Your task to perform on an android device: toggle airplane mode Image 0: 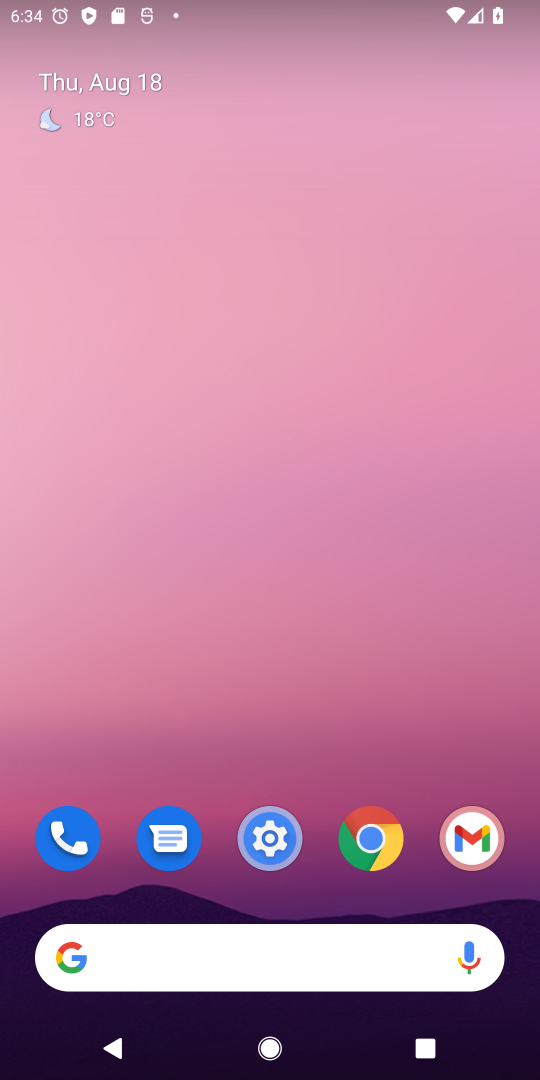
Step 0: press home button
Your task to perform on an android device: toggle airplane mode Image 1: 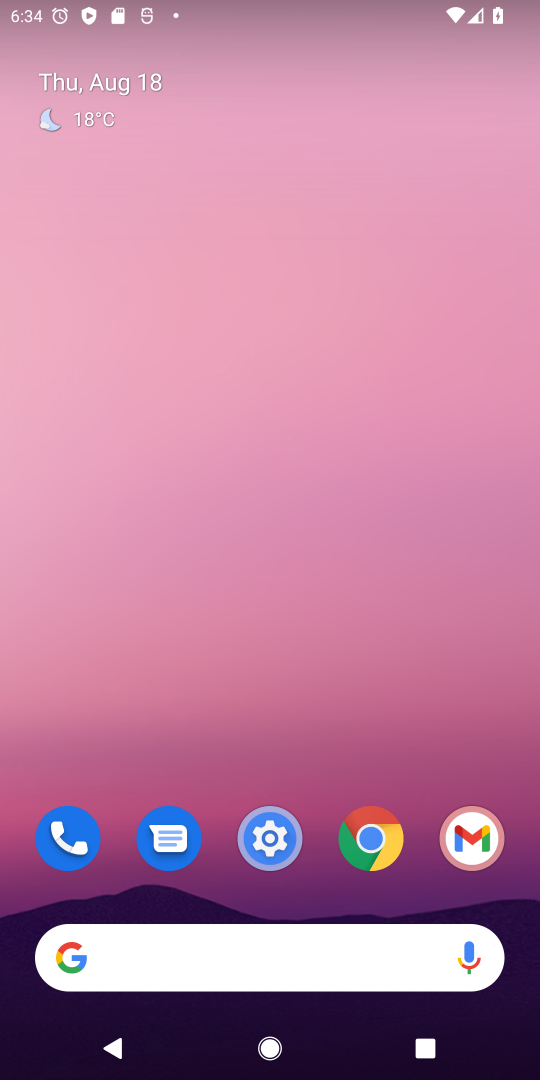
Step 1: click (286, 838)
Your task to perform on an android device: toggle airplane mode Image 2: 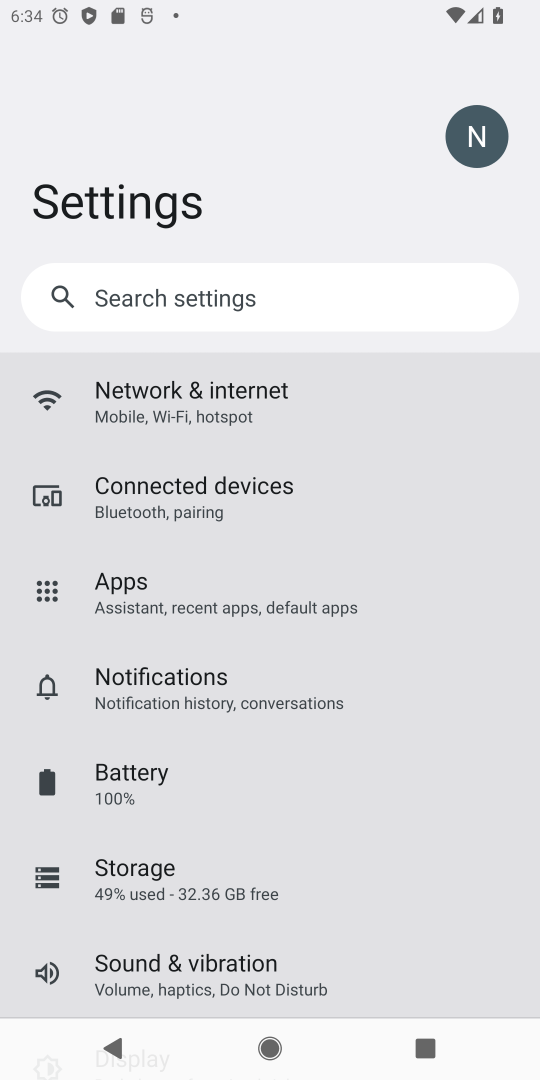
Step 2: click (187, 403)
Your task to perform on an android device: toggle airplane mode Image 3: 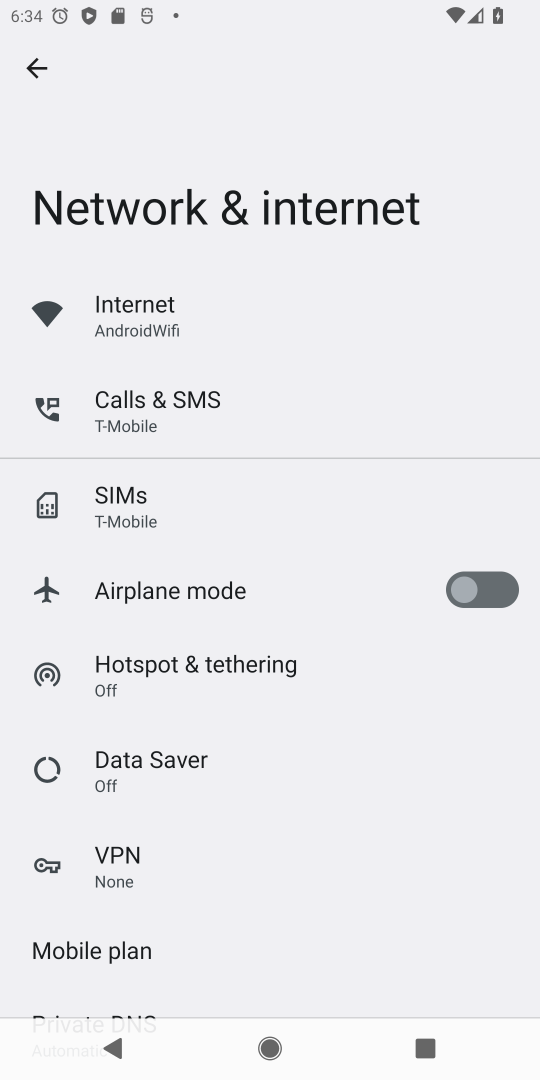
Step 3: click (461, 600)
Your task to perform on an android device: toggle airplane mode Image 4: 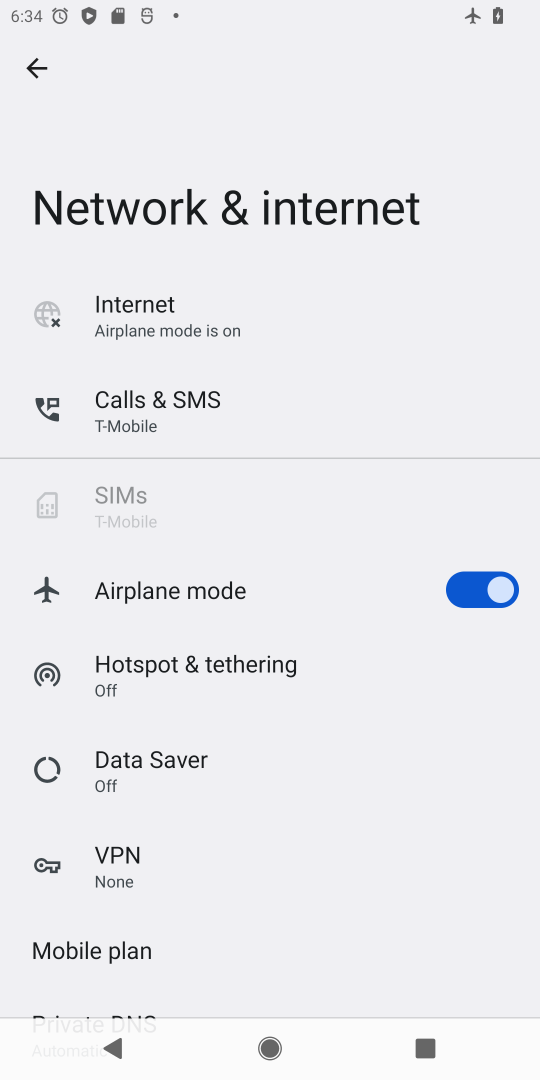
Step 4: task complete